Your task to perform on an android device: Go to battery settings Image 0: 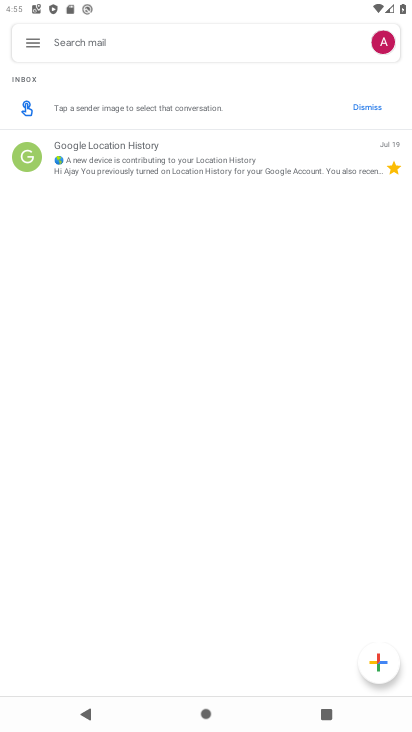
Step 0: press home button
Your task to perform on an android device: Go to battery settings Image 1: 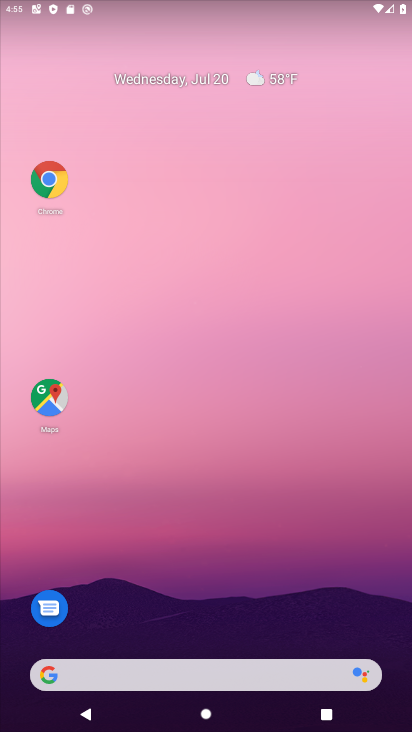
Step 1: drag from (202, 636) to (47, 47)
Your task to perform on an android device: Go to battery settings Image 2: 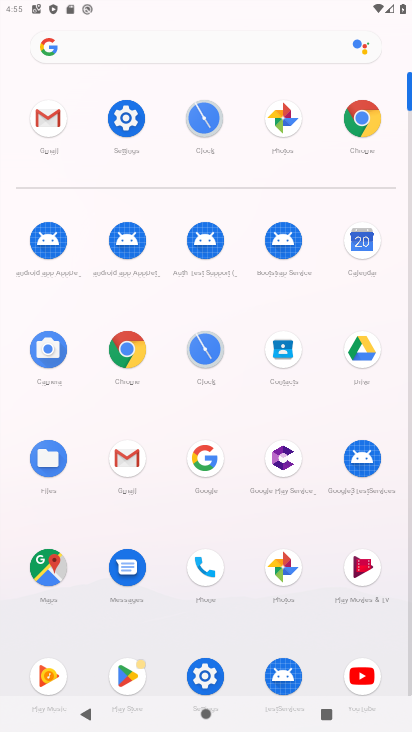
Step 2: click (122, 100)
Your task to perform on an android device: Go to battery settings Image 3: 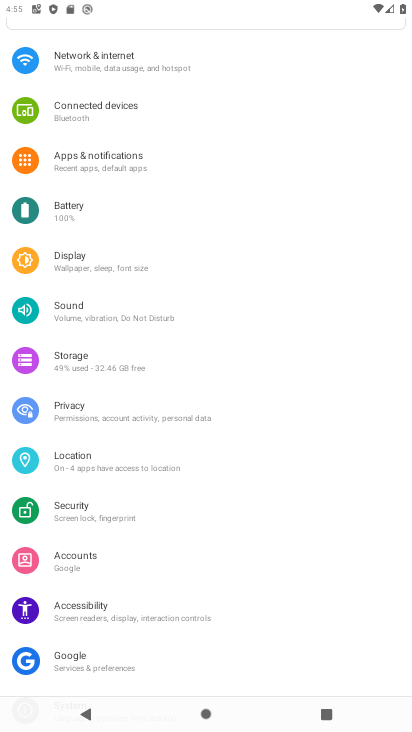
Step 3: click (79, 206)
Your task to perform on an android device: Go to battery settings Image 4: 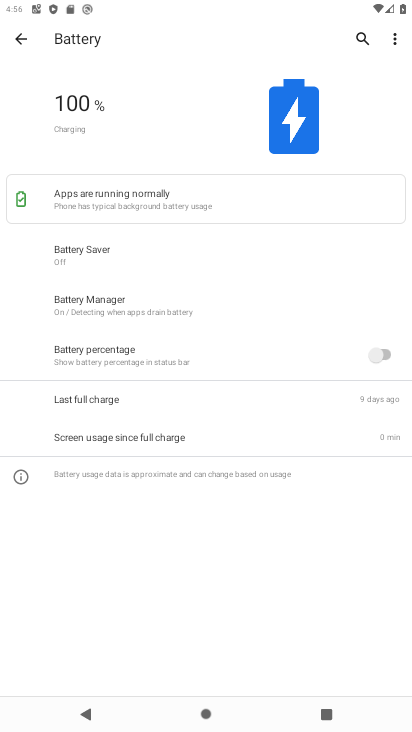
Step 4: task complete